Your task to perform on an android device: Do I have any events this weekend? Image 0: 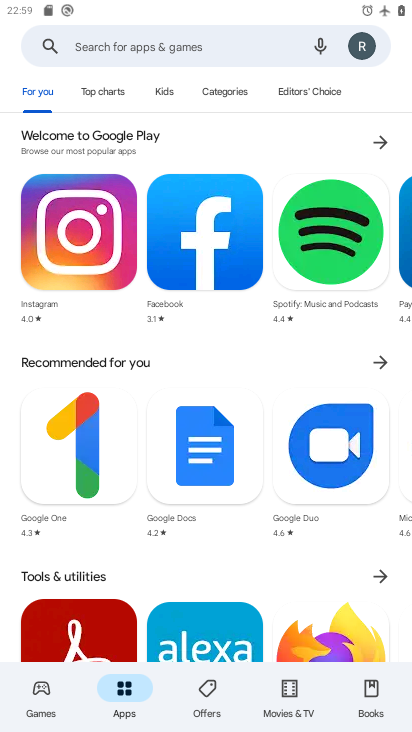
Step 0: press home button
Your task to perform on an android device: Do I have any events this weekend? Image 1: 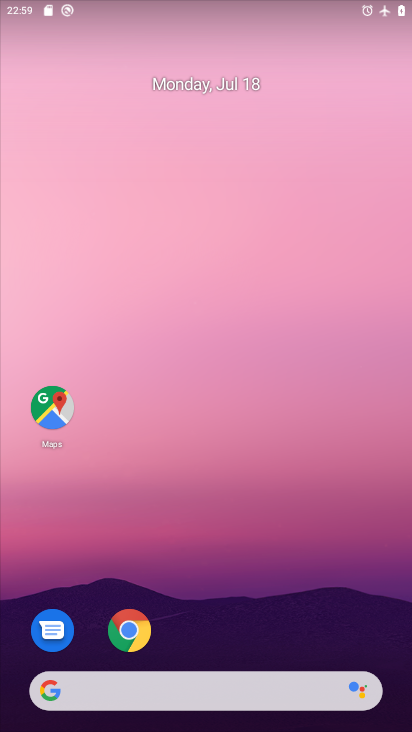
Step 1: drag from (214, 715) to (317, 207)
Your task to perform on an android device: Do I have any events this weekend? Image 2: 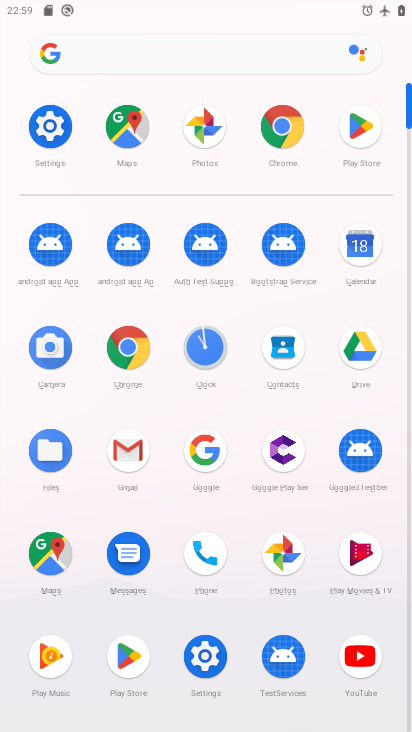
Step 2: click (354, 236)
Your task to perform on an android device: Do I have any events this weekend? Image 3: 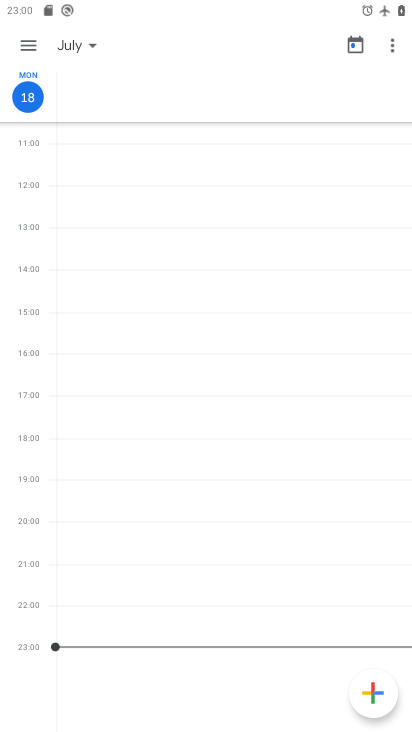
Step 3: task complete